Your task to perform on an android device: add a contact in the contacts app Image 0: 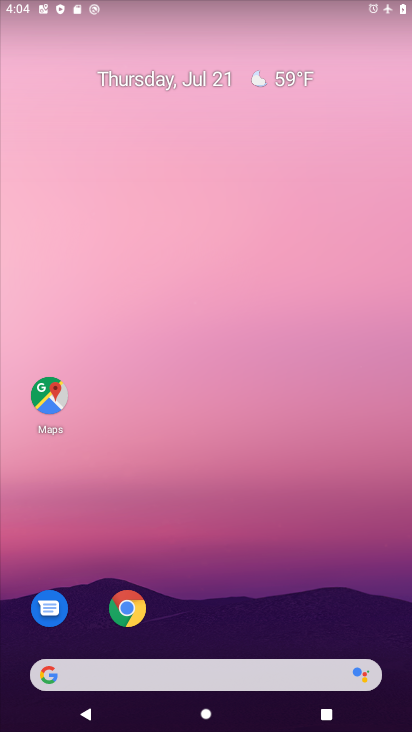
Step 0: drag from (296, 535) to (349, 57)
Your task to perform on an android device: add a contact in the contacts app Image 1: 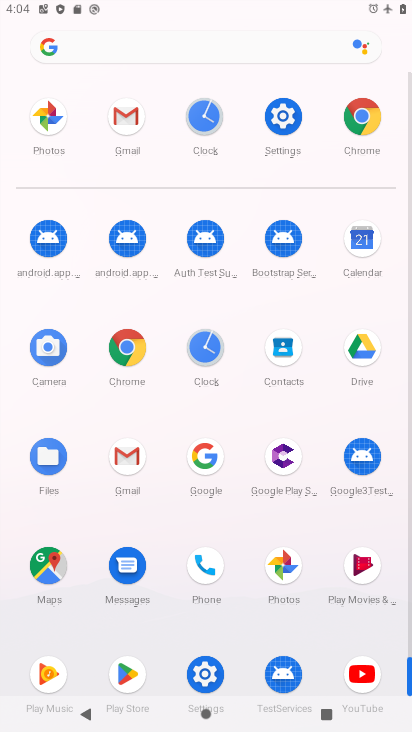
Step 1: click (292, 356)
Your task to perform on an android device: add a contact in the contacts app Image 2: 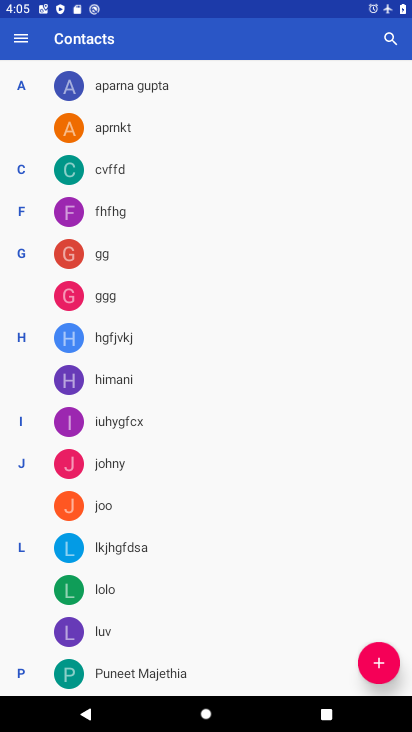
Step 2: click (375, 668)
Your task to perform on an android device: add a contact in the contacts app Image 3: 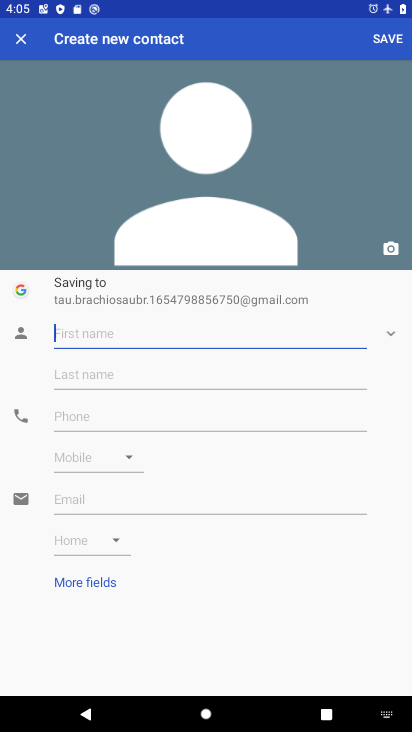
Step 3: type "swati"
Your task to perform on an android device: add a contact in the contacts app Image 4: 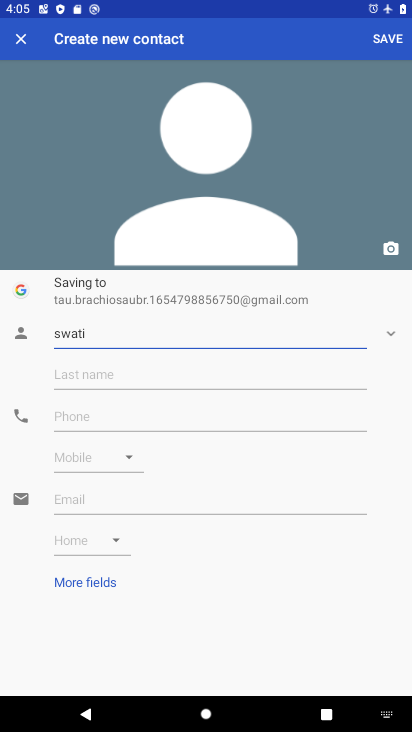
Step 4: click (110, 414)
Your task to perform on an android device: add a contact in the contacts app Image 5: 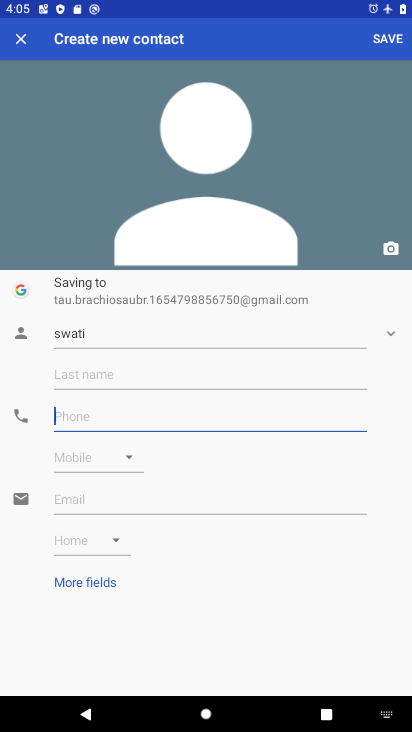
Step 5: type "8907896789"
Your task to perform on an android device: add a contact in the contacts app Image 6: 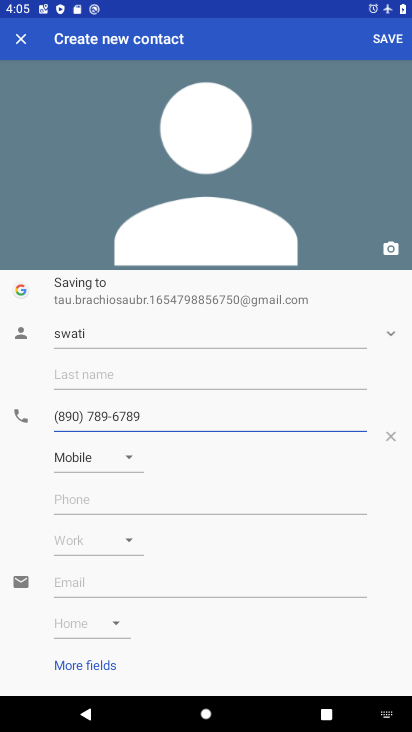
Step 6: click (386, 42)
Your task to perform on an android device: add a contact in the contacts app Image 7: 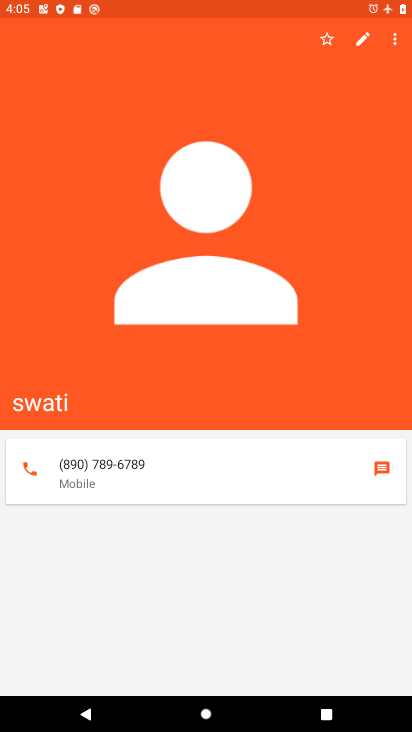
Step 7: task complete